Your task to perform on an android device: change the clock display to analog Image 0: 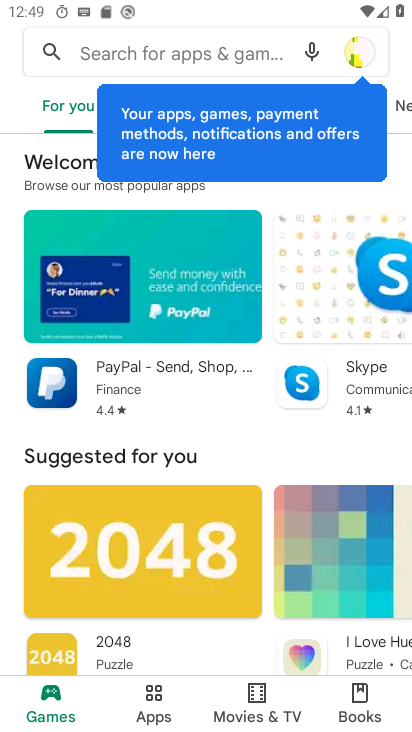
Step 0: press home button
Your task to perform on an android device: change the clock display to analog Image 1: 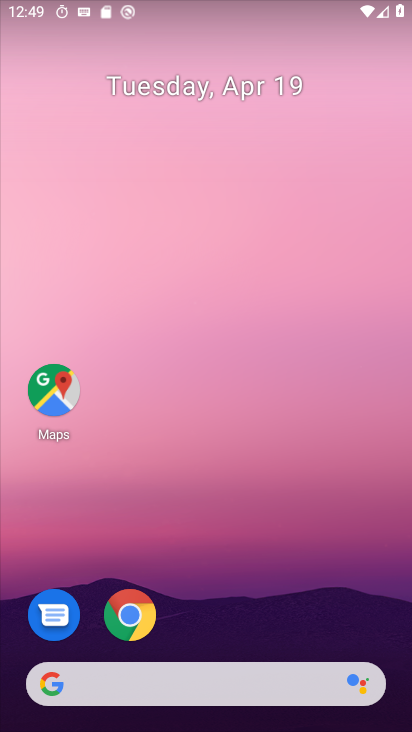
Step 1: drag from (392, 614) to (381, 43)
Your task to perform on an android device: change the clock display to analog Image 2: 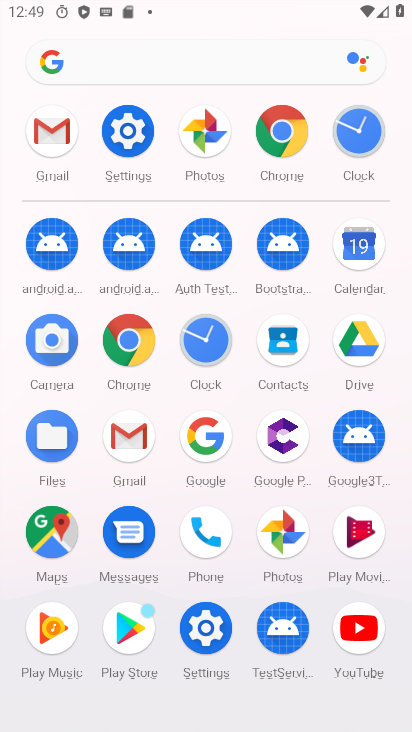
Step 2: click (208, 342)
Your task to perform on an android device: change the clock display to analog Image 3: 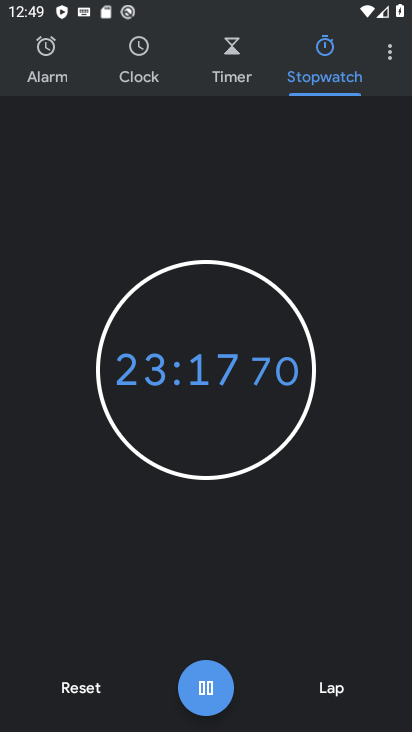
Step 3: click (392, 56)
Your task to perform on an android device: change the clock display to analog Image 4: 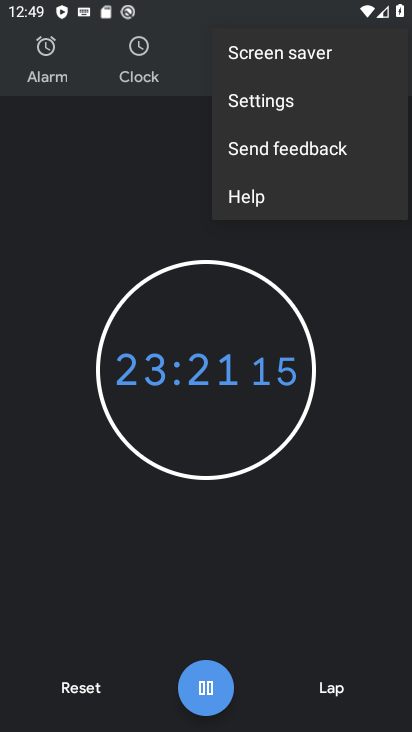
Step 4: click (295, 109)
Your task to perform on an android device: change the clock display to analog Image 5: 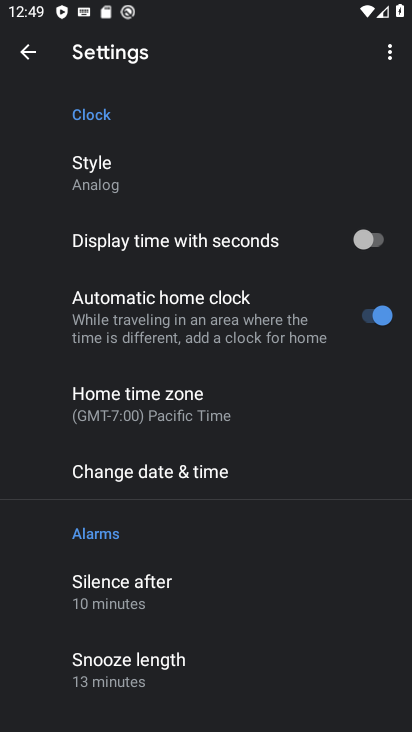
Step 5: task complete